Your task to perform on an android device: turn on airplane mode Image 0: 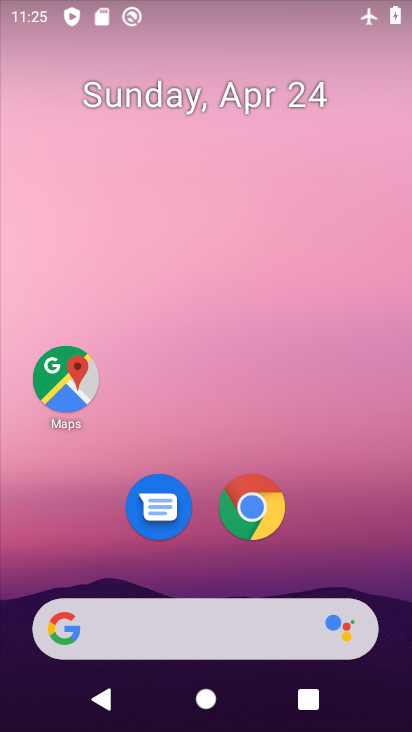
Step 0: drag from (342, 575) to (270, 0)
Your task to perform on an android device: turn on airplane mode Image 1: 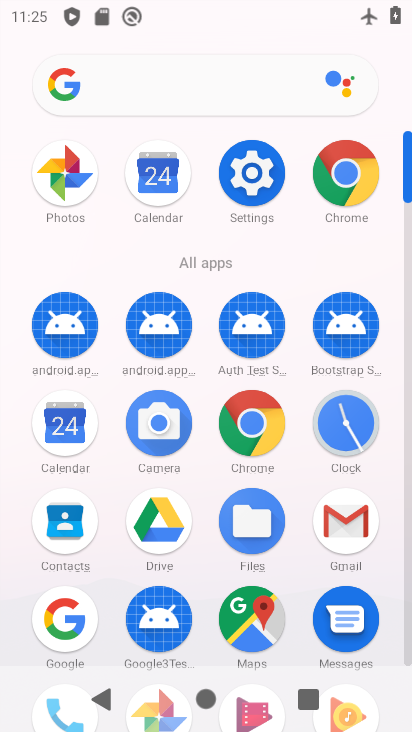
Step 1: drag from (10, 550) to (13, 265)
Your task to perform on an android device: turn on airplane mode Image 2: 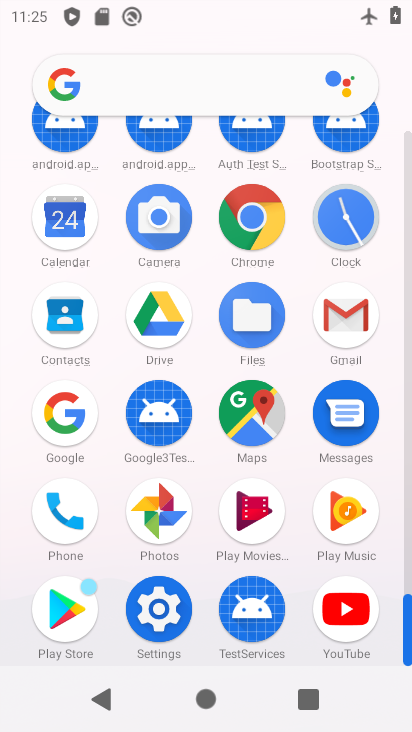
Step 2: click (155, 609)
Your task to perform on an android device: turn on airplane mode Image 3: 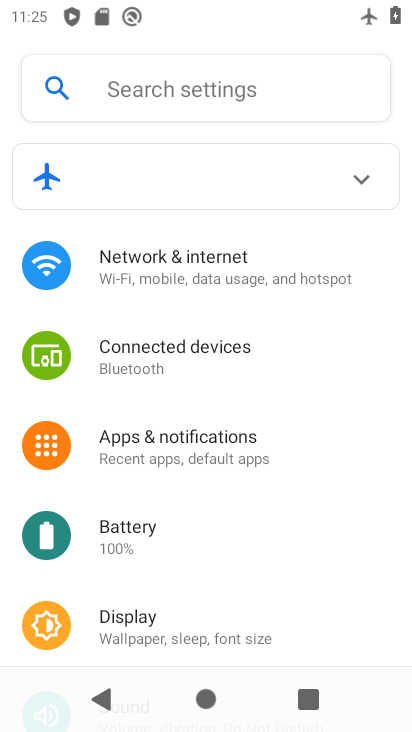
Step 3: click (240, 273)
Your task to perform on an android device: turn on airplane mode Image 4: 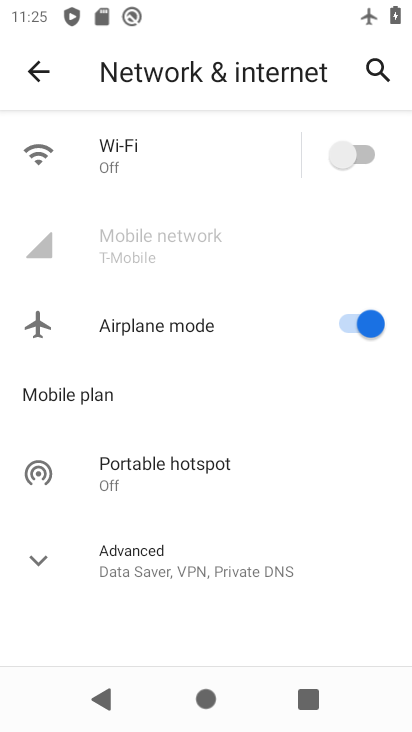
Step 4: task complete